Your task to perform on an android device: check out phone information Image 0: 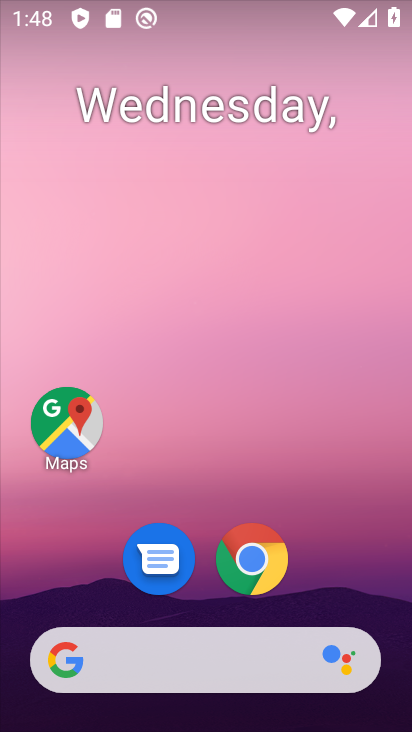
Step 0: drag from (213, 358) to (254, 50)
Your task to perform on an android device: check out phone information Image 1: 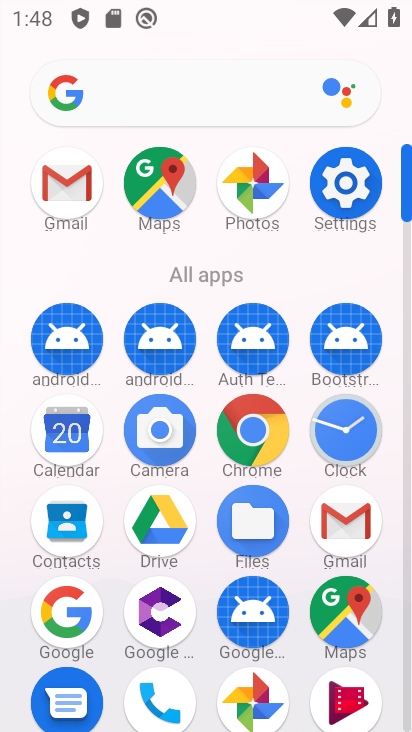
Step 1: click (342, 184)
Your task to perform on an android device: check out phone information Image 2: 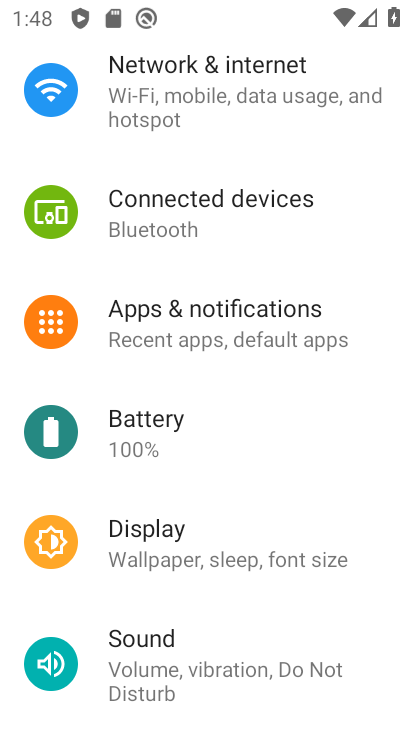
Step 2: drag from (236, 515) to (311, 142)
Your task to perform on an android device: check out phone information Image 3: 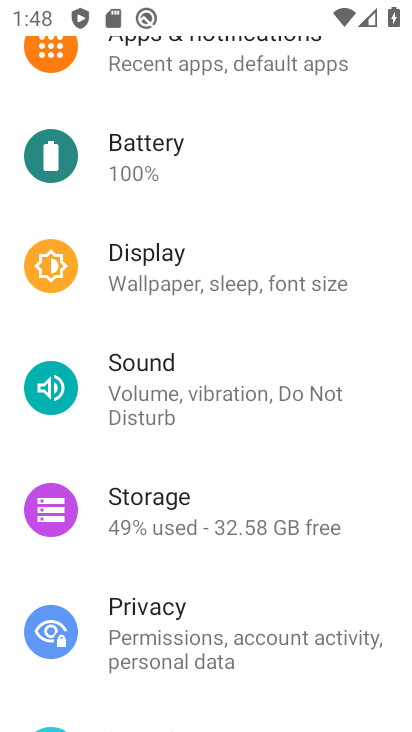
Step 3: drag from (224, 577) to (294, 55)
Your task to perform on an android device: check out phone information Image 4: 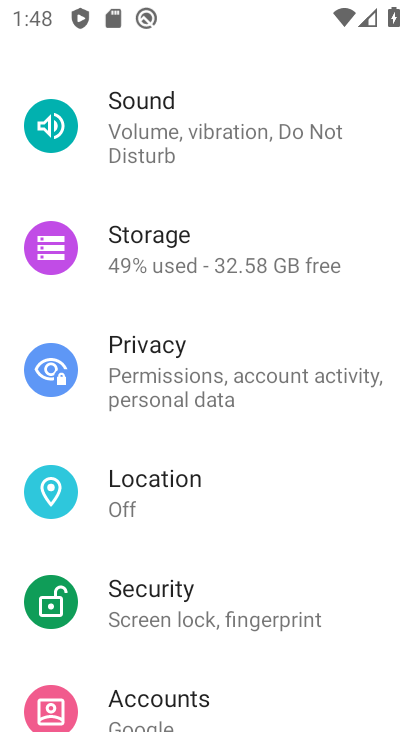
Step 4: drag from (236, 664) to (274, 95)
Your task to perform on an android device: check out phone information Image 5: 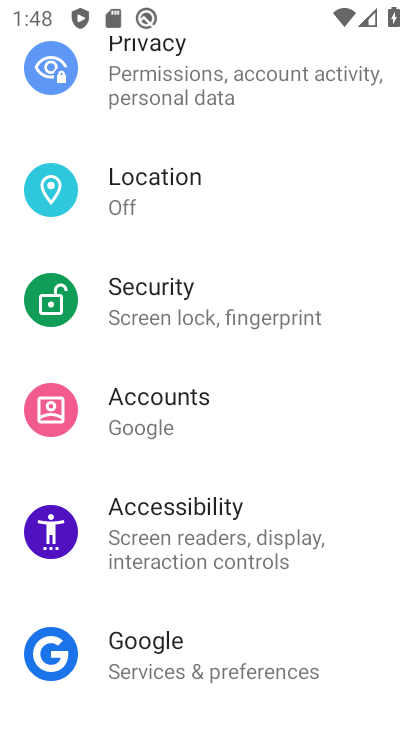
Step 5: drag from (219, 591) to (292, 121)
Your task to perform on an android device: check out phone information Image 6: 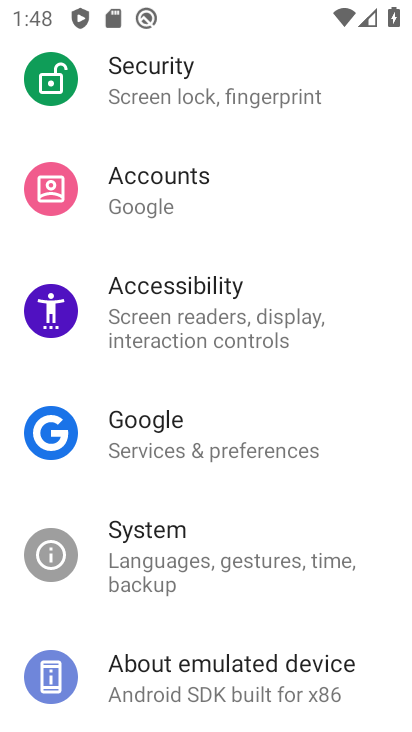
Step 6: click (241, 690)
Your task to perform on an android device: check out phone information Image 7: 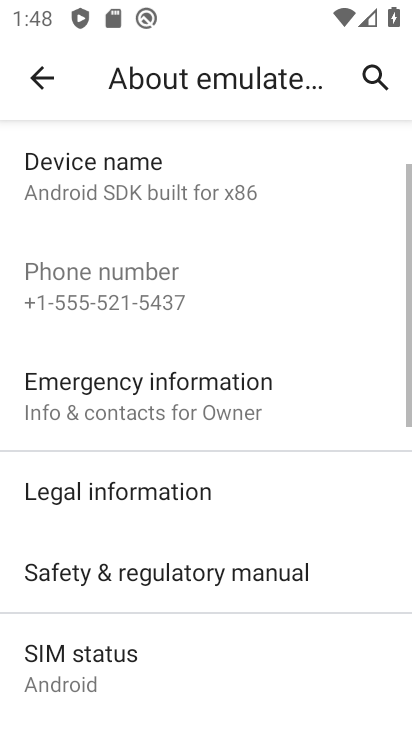
Step 7: task complete